Your task to perform on an android device: check battery use Image 0: 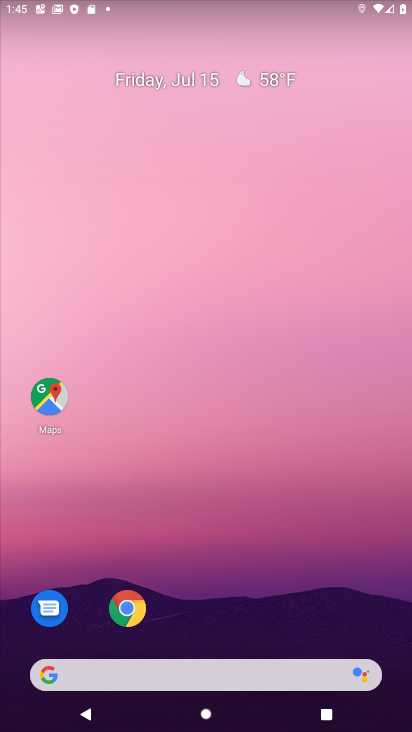
Step 0: drag from (315, 618) to (290, 102)
Your task to perform on an android device: check battery use Image 1: 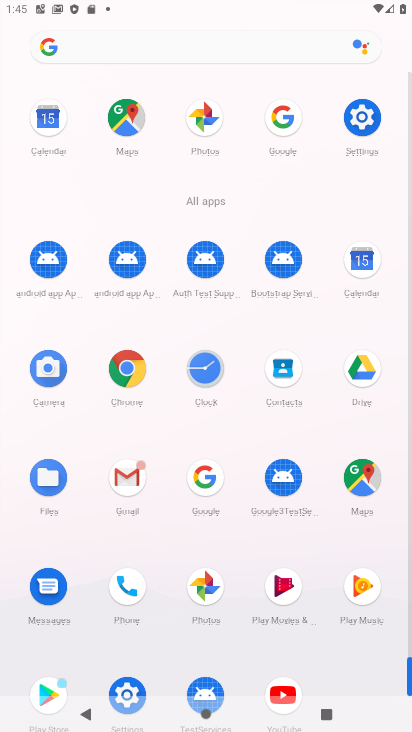
Step 1: click (128, 675)
Your task to perform on an android device: check battery use Image 2: 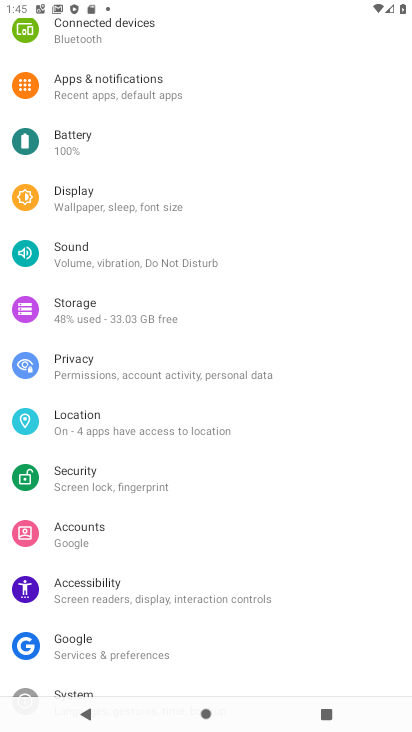
Step 2: click (76, 142)
Your task to perform on an android device: check battery use Image 3: 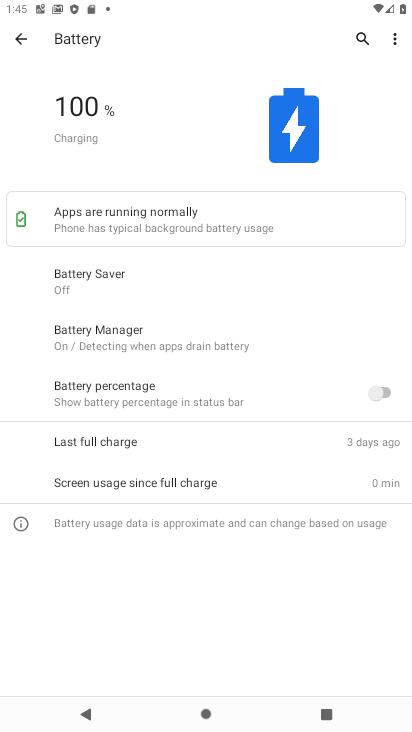
Step 3: task complete